Your task to perform on an android device: allow notifications from all sites in the chrome app Image 0: 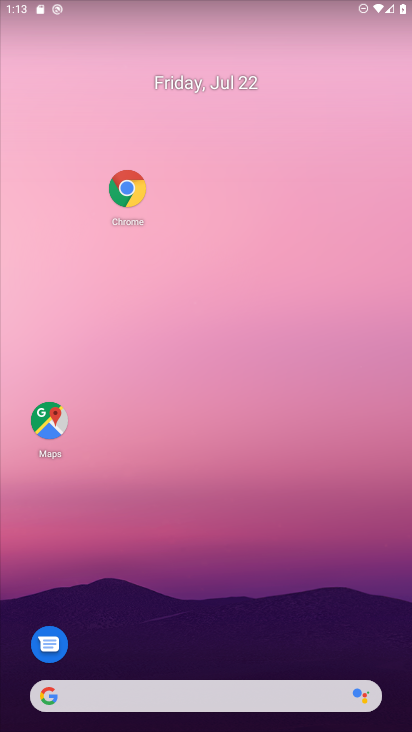
Step 0: click (120, 195)
Your task to perform on an android device: allow notifications from all sites in the chrome app Image 1: 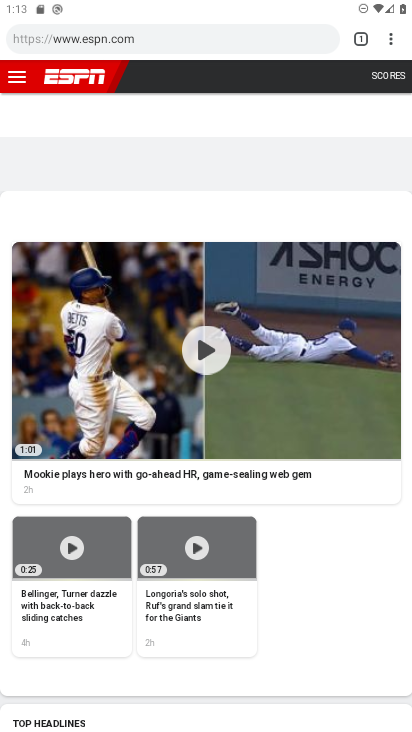
Step 1: click (397, 33)
Your task to perform on an android device: allow notifications from all sites in the chrome app Image 2: 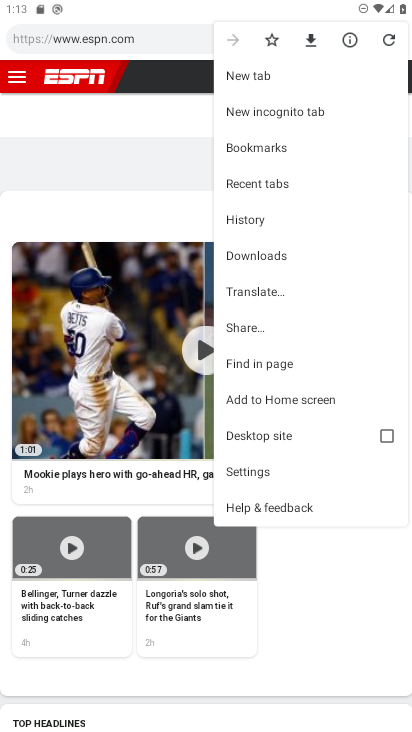
Step 2: click (254, 466)
Your task to perform on an android device: allow notifications from all sites in the chrome app Image 3: 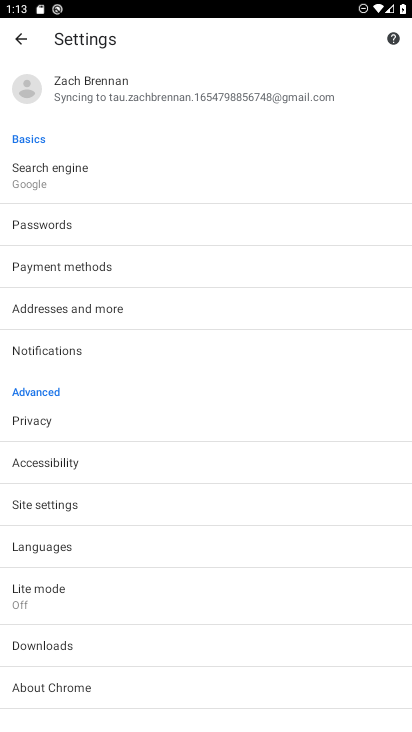
Step 3: click (97, 357)
Your task to perform on an android device: allow notifications from all sites in the chrome app Image 4: 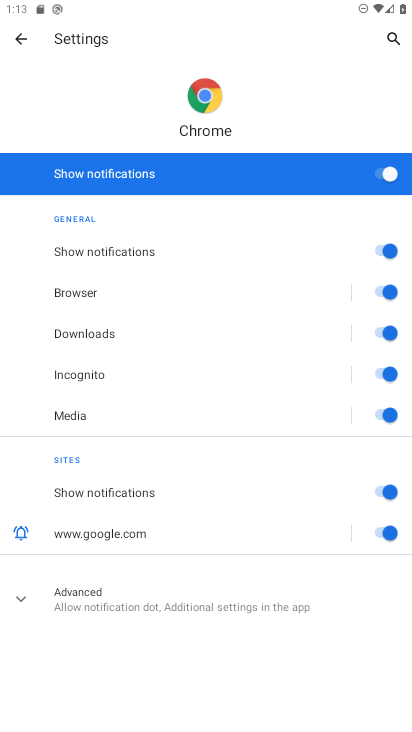
Step 4: click (97, 357)
Your task to perform on an android device: allow notifications from all sites in the chrome app Image 5: 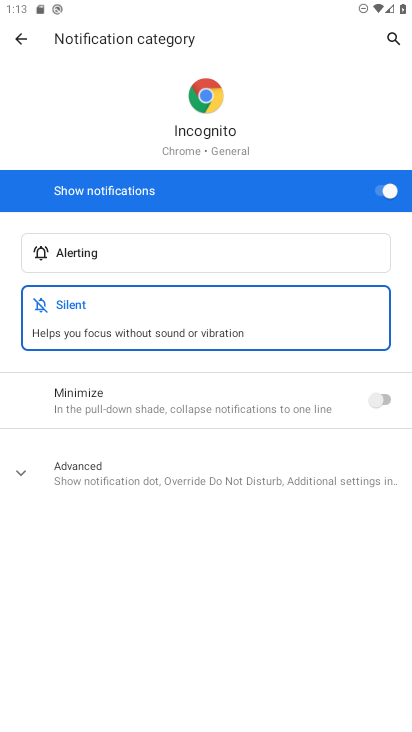
Step 5: click (392, 198)
Your task to perform on an android device: allow notifications from all sites in the chrome app Image 6: 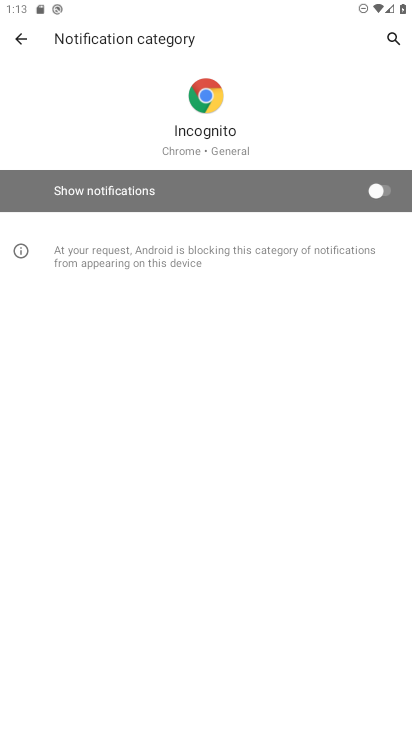
Step 6: task complete